Your task to perform on an android device: open a bookmark in the chrome app Image 0: 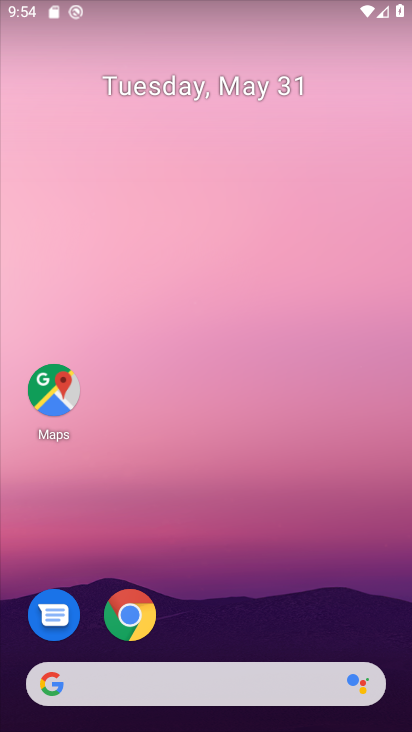
Step 0: click (133, 617)
Your task to perform on an android device: open a bookmark in the chrome app Image 1: 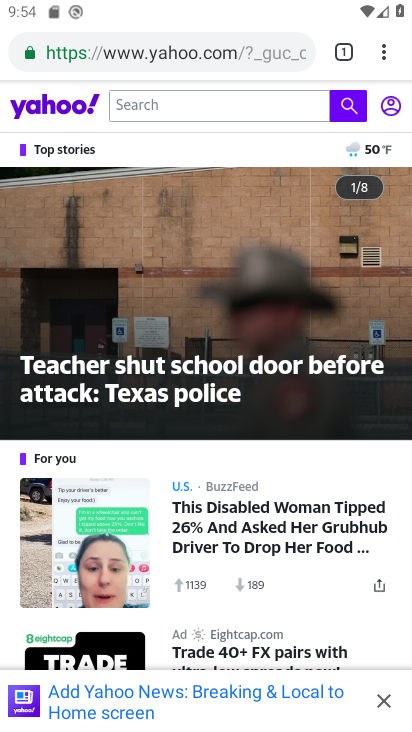
Step 1: click (381, 54)
Your task to perform on an android device: open a bookmark in the chrome app Image 2: 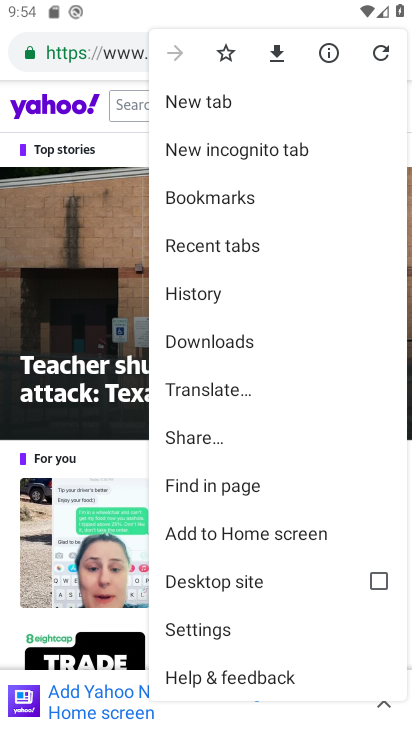
Step 2: click (215, 203)
Your task to perform on an android device: open a bookmark in the chrome app Image 3: 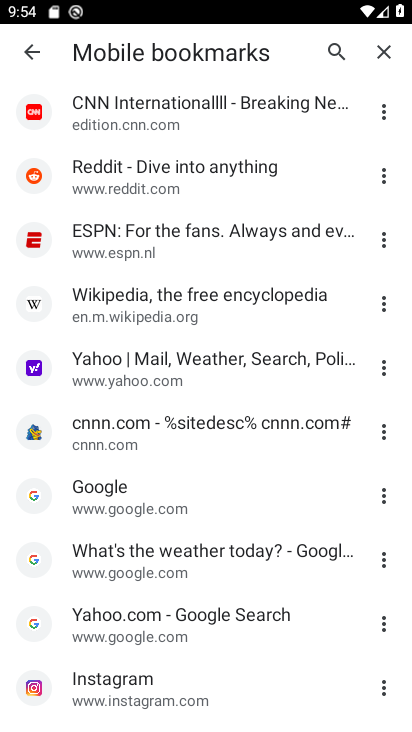
Step 3: click (101, 176)
Your task to perform on an android device: open a bookmark in the chrome app Image 4: 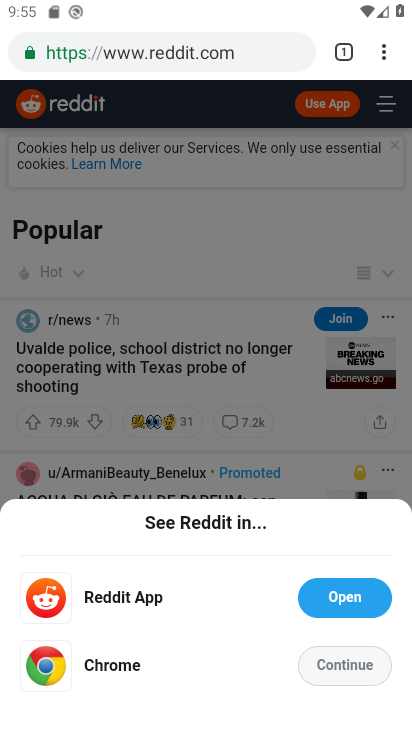
Step 4: task complete